Your task to perform on an android device: toggle notifications settings in the gmail app Image 0: 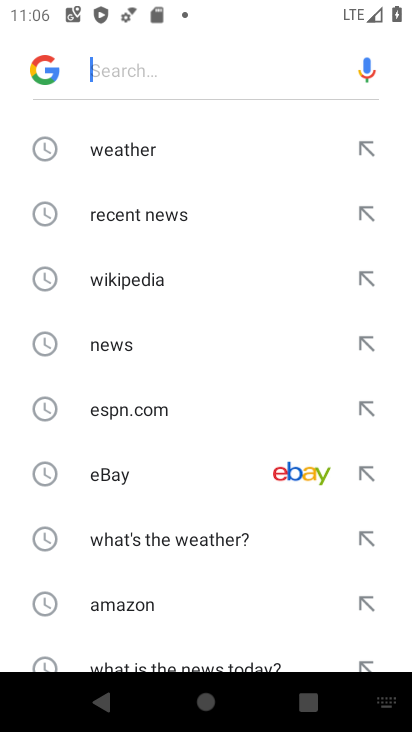
Step 0: press home button
Your task to perform on an android device: toggle notifications settings in the gmail app Image 1: 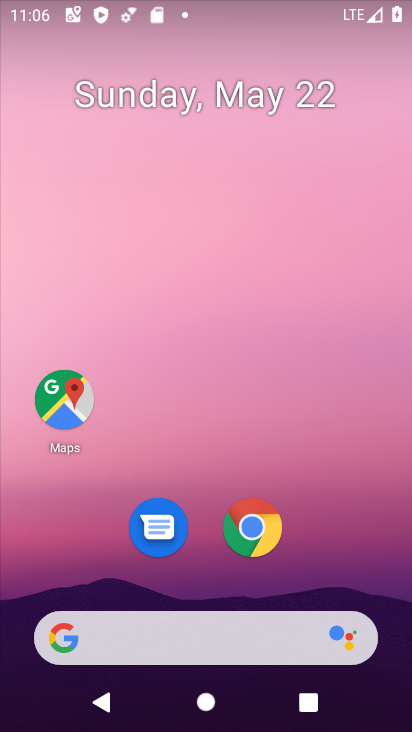
Step 1: drag from (323, 539) to (322, 189)
Your task to perform on an android device: toggle notifications settings in the gmail app Image 2: 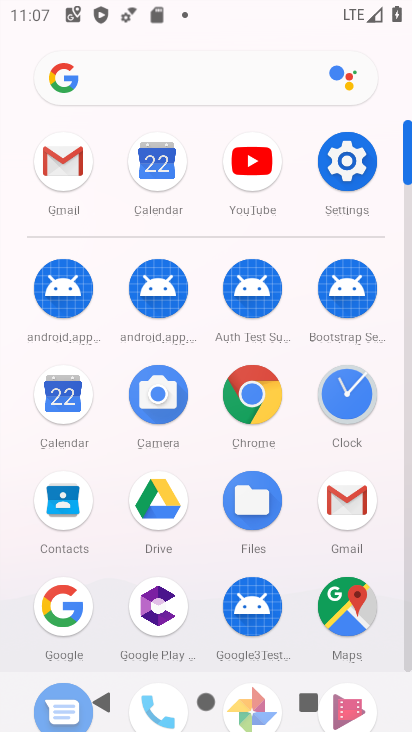
Step 2: click (67, 199)
Your task to perform on an android device: toggle notifications settings in the gmail app Image 3: 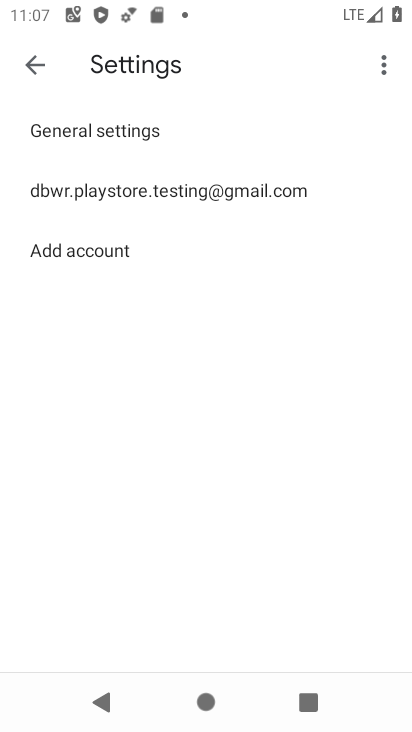
Step 3: task complete